Your task to perform on an android device: find snoozed emails in the gmail app Image 0: 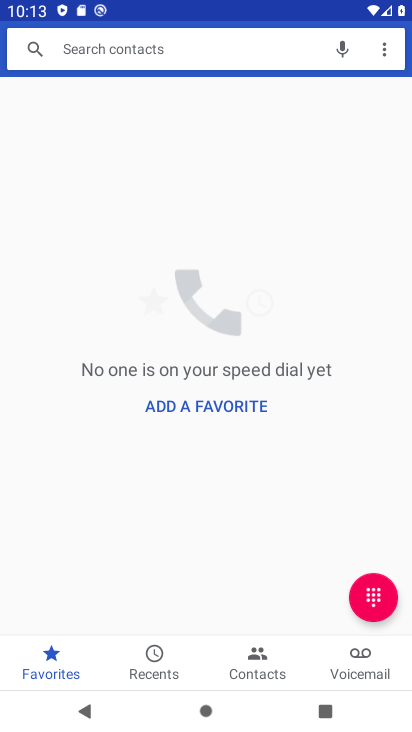
Step 0: press home button
Your task to perform on an android device: find snoozed emails in the gmail app Image 1: 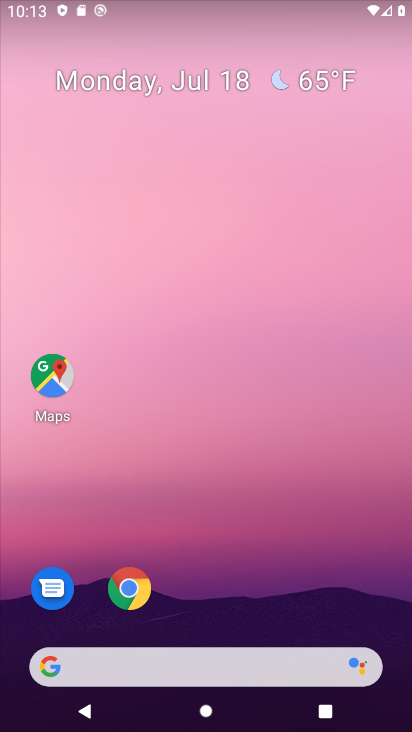
Step 1: drag from (262, 580) to (226, 31)
Your task to perform on an android device: find snoozed emails in the gmail app Image 2: 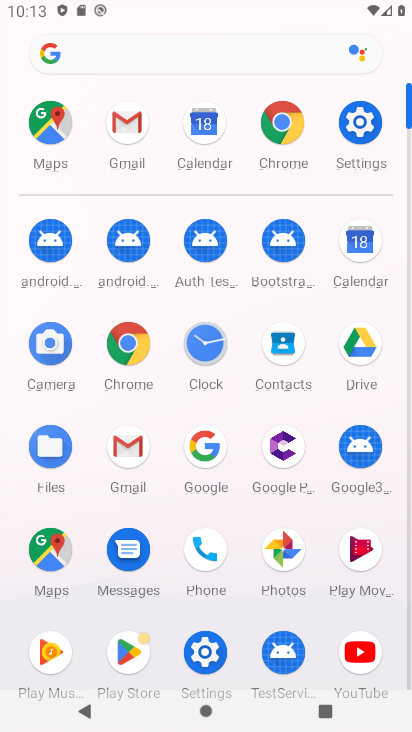
Step 2: click (119, 131)
Your task to perform on an android device: find snoozed emails in the gmail app Image 3: 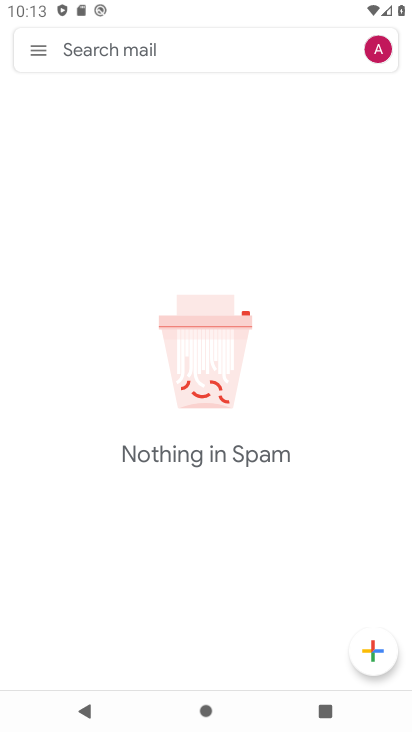
Step 3: click (42, 54)
Your task to perform on an android device: find snoozed emails in the gmail app Image 4: 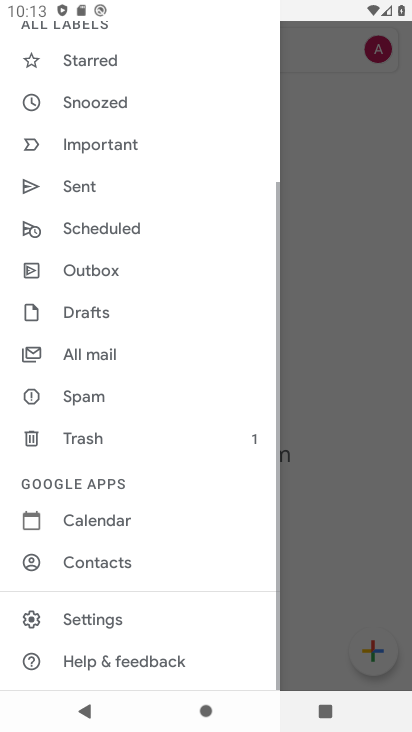
Step 4: click (86, 103)
Your task to perform on an android device: find snoozed emails in the gmail app Image 5: 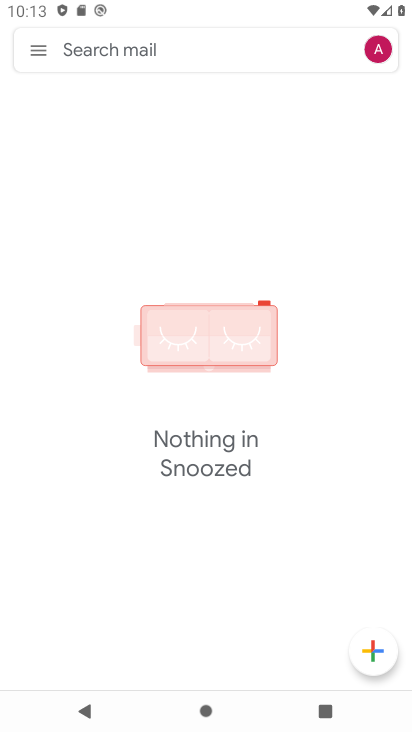
Step 5: task complete